Your task to perform on an android device: open wifi settings Image 0: 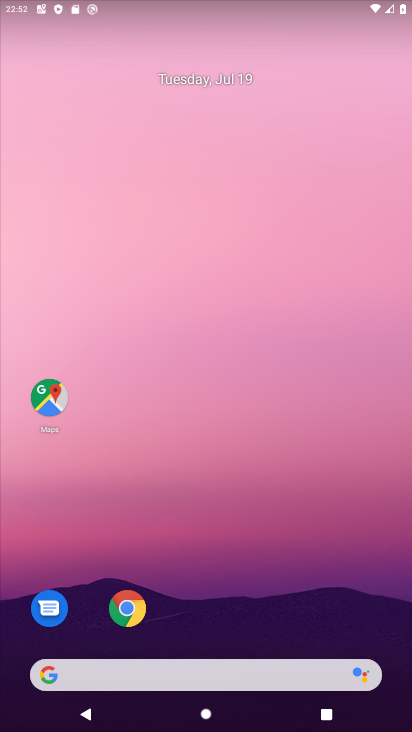
Step 0: drag from (261, 574) to (278, 13)
Your task to perform on an android device: open wifi settings Image 1: 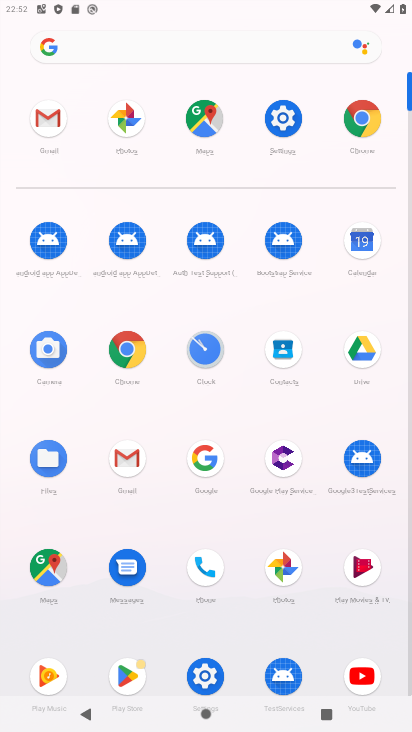
Step 1: click (286, 128)
Your task to perform on an android device: open wifi settings Image 2: 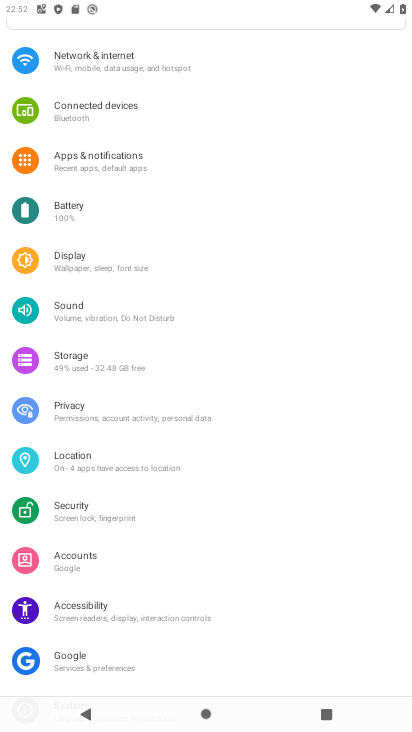
Step 2: click (82, 60)
Your task to perform on an android device: open wifi settings Image 3: 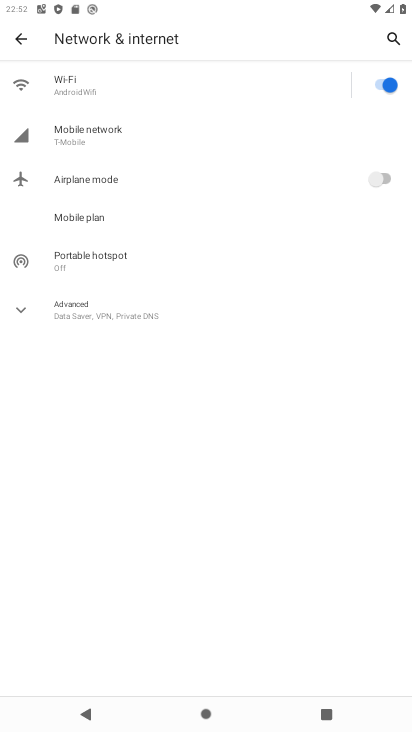
Step 3: click (86, 81)
Your task to perform on an android device: open wifi settings Image 4: 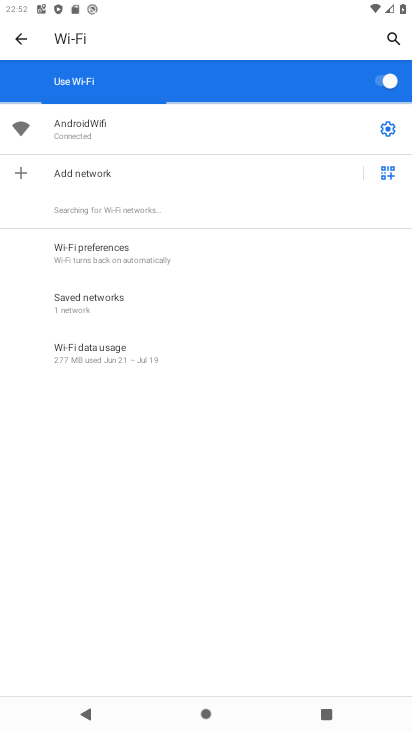
Step 4: click (384, 131)
Your task to perform on an android device: open wifi settings Image 5: 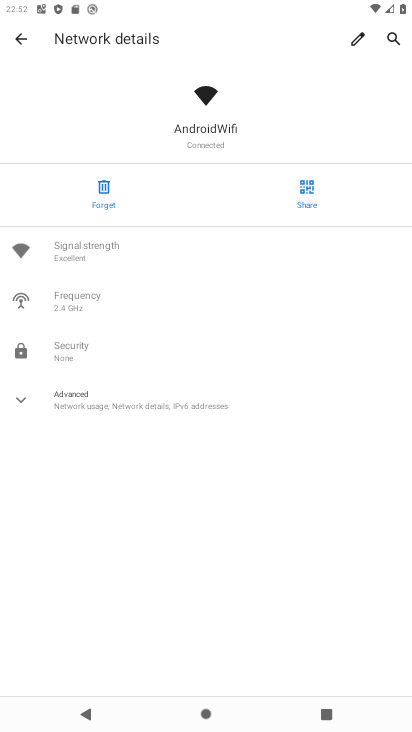
Step 5: task complete